Your task to perform on an android device: turn smart compose on in the gmail app Image 0: 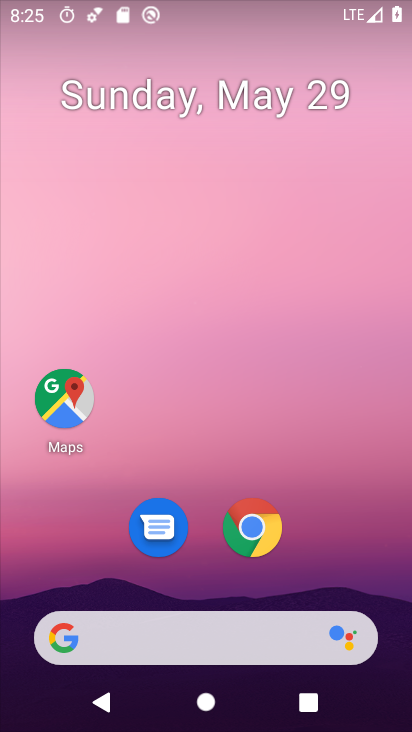
Step 0: press home button
Your task to perform on an android device: turn smart compose on in the gmail app Image 1: 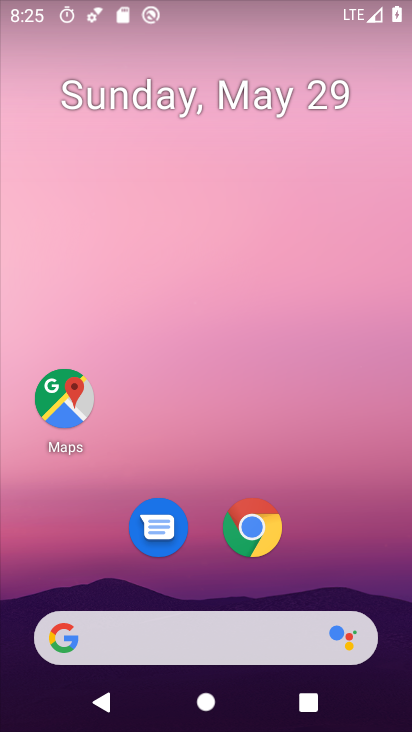
Step 1: drag from (212, 587) to (189, 26)
Your task to perform on an android device: turn smart compose on in the gmail app Image 2: 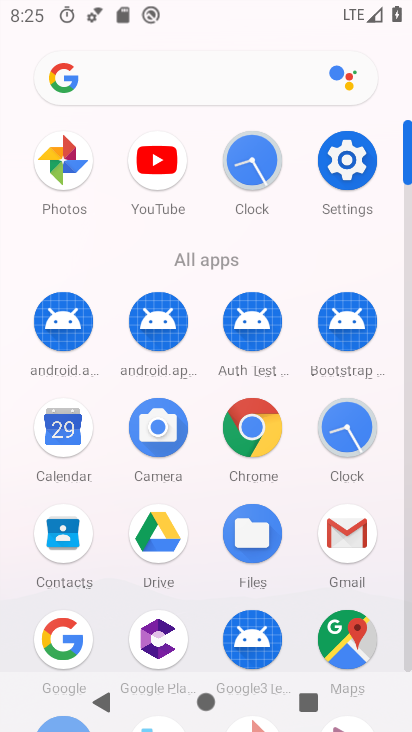
Step 2: click (345, 526)
Your task to perform on an android device: turn smart compose on in the gmail app Image 3: 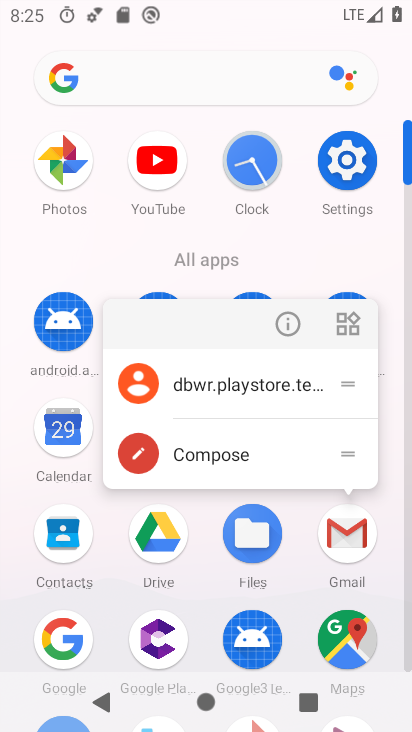
Step 3: click (345, 526)
Your task to perform on an android device: turn smart compose on in the gmail app Image 4: 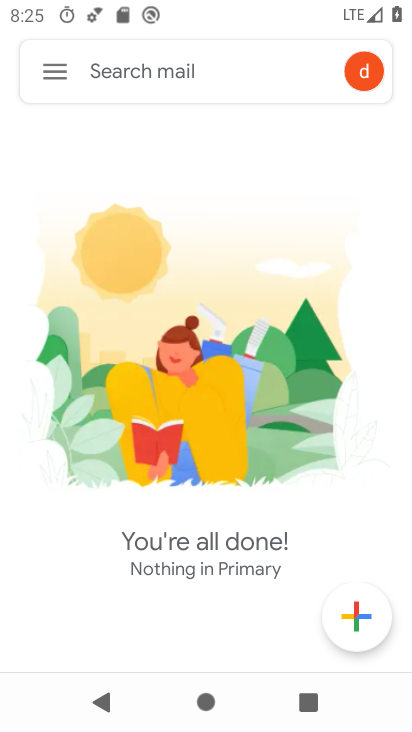
Step 4: click (57, 66)
Your task to perform on an android device: turn smart compose on in the gmail app Image 5: 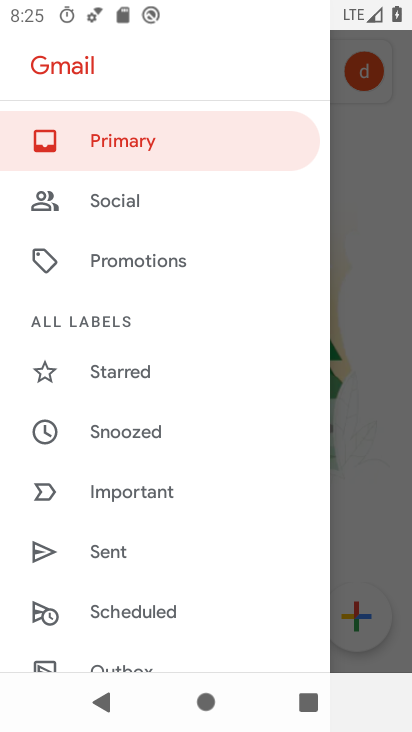
Step 5: drag from (139, 629) to (133, 136)
Your task to perform on an android device: turn smart compose on in the gmail app Image 6: 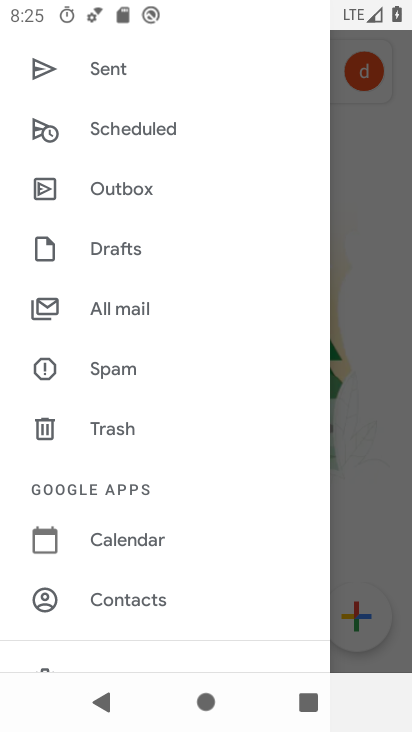
Step 6: drag from (160, 628) to (156, 433)
Your task to perform on an android device: turn smart compose on in the gmail app Image 7: 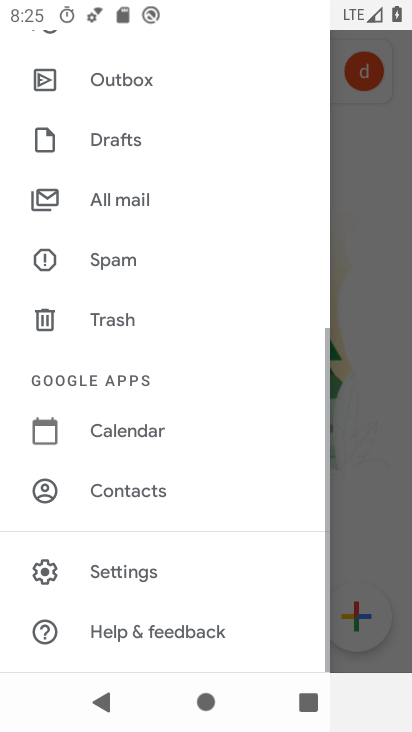
Step 7: drag from (160, 245) to (147, 121)
Your task to perform on an android device: turn smart compose on in the gmail app Image 8: 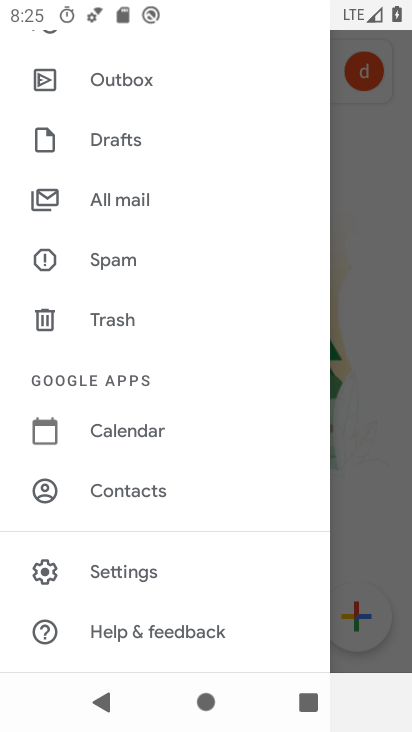
Step 8: click (171, 576)
Your task to perform on an android device: turn smart compose on in the gmail app Image 9: 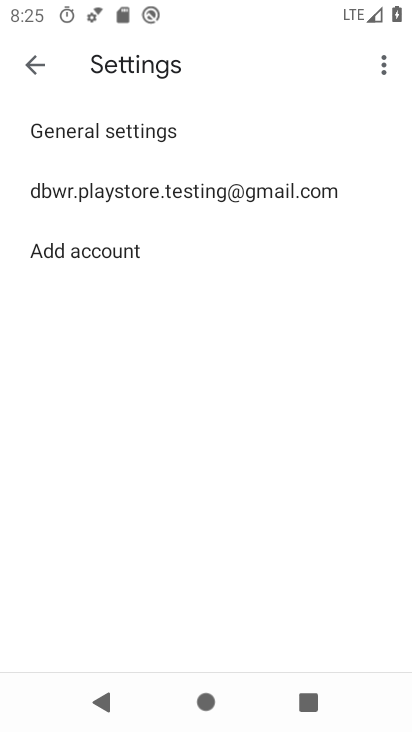
Step 9: click (277, 185)
Your task to perform on an android device: turn smart compose on in the gmail app Image 10: 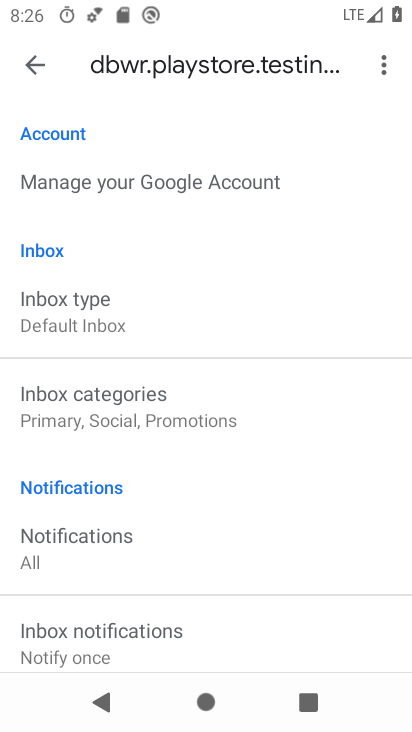
Step 10: drag from (233, 640) to (250, 195)
Your task to perform on an android device: turn smart compose on in the gmail app Image 11: 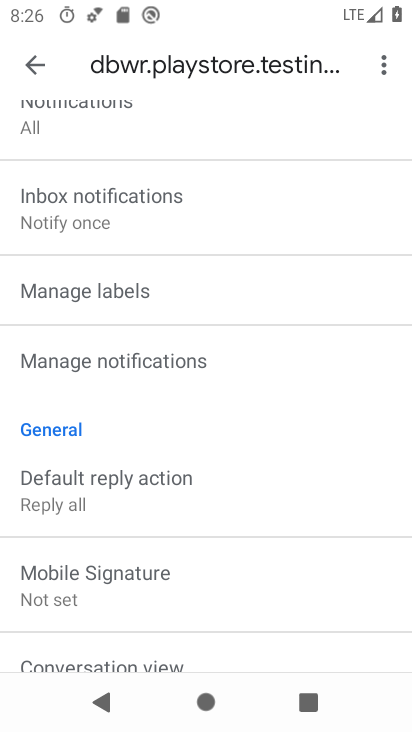
Step 11: click (213, 640)
Your task to perform on an android device: turn smart compose on in the gmail app Image 12: 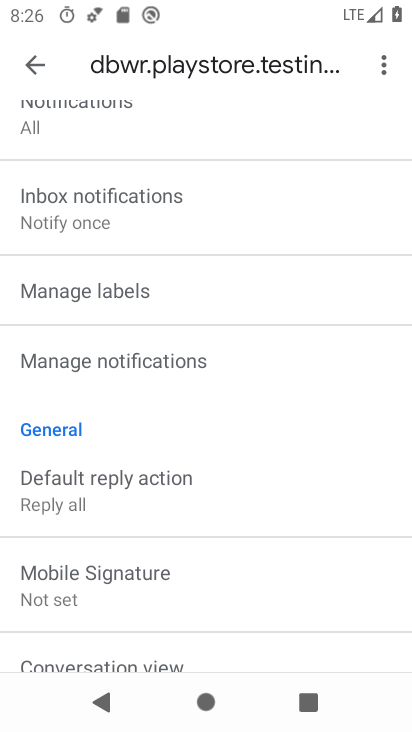
Step 12: click (237, 535)
Your task to perform on an android device: turn smart compose on in the gmail app Image 13: 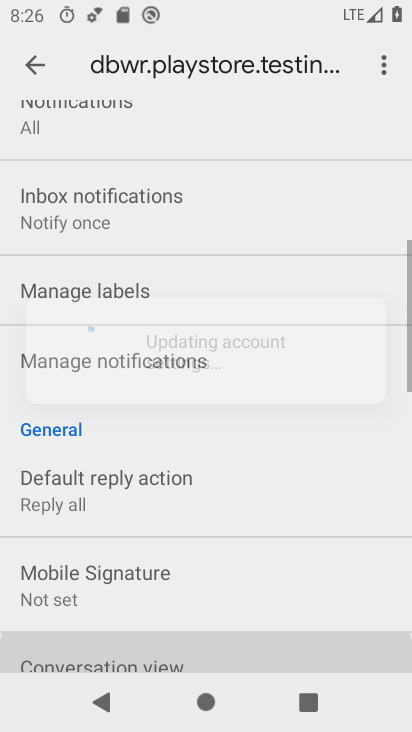
Step 13: drag from (257, 323) to (253, 222)
Your task to perform on an android device: turn smart compose on in the gmail app Image 14: 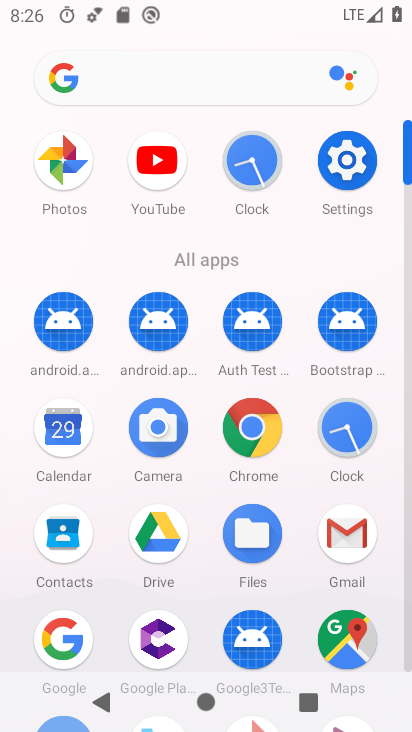
Step 14: click (353, 523)
Your task to perform on an android device: turn smart compose on in the gmail app Image 15: 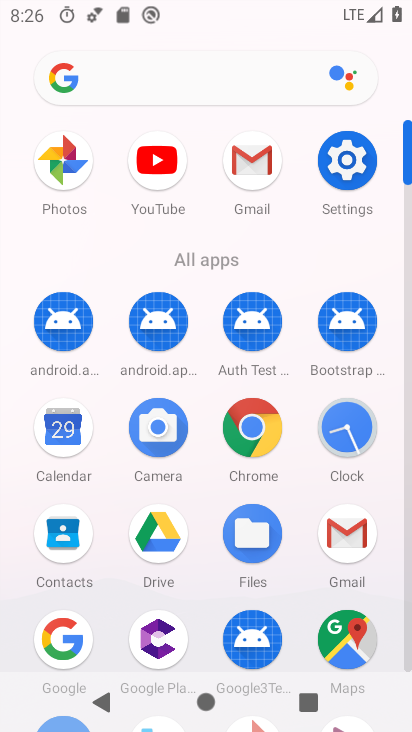
Step 15: click (250, 150)
Your task to perform on an android device: turn smart compose on in the gmail app Image 16: 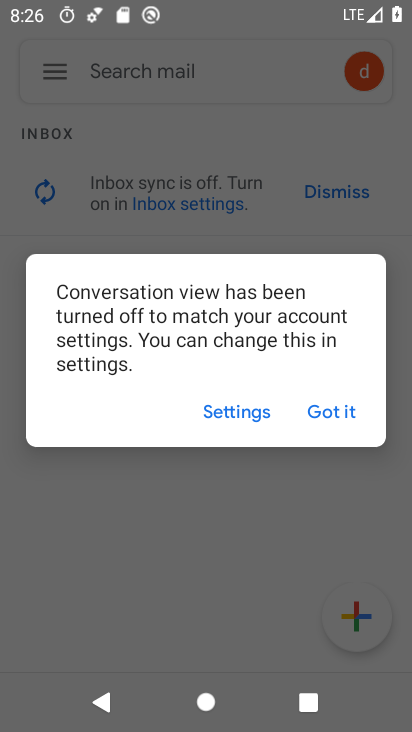
Step 16: click (326, 413)
Your task to perform on an android device: turn smart compose on in the gmail app Image 17: 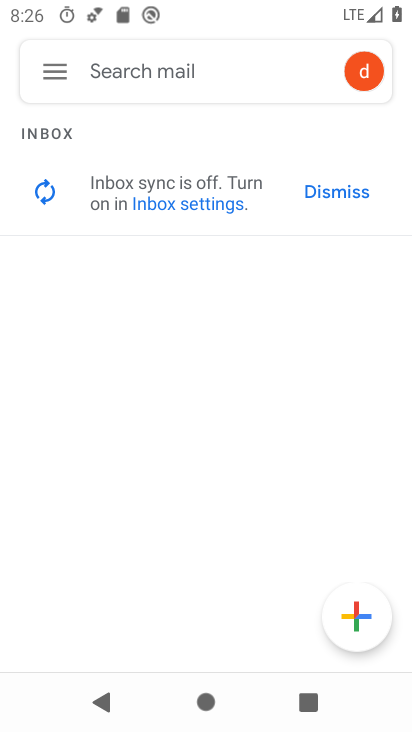
Step 17: click (57, 74)
Your task to perform on an android device: turn smart compose on in the gmail app Image 18: 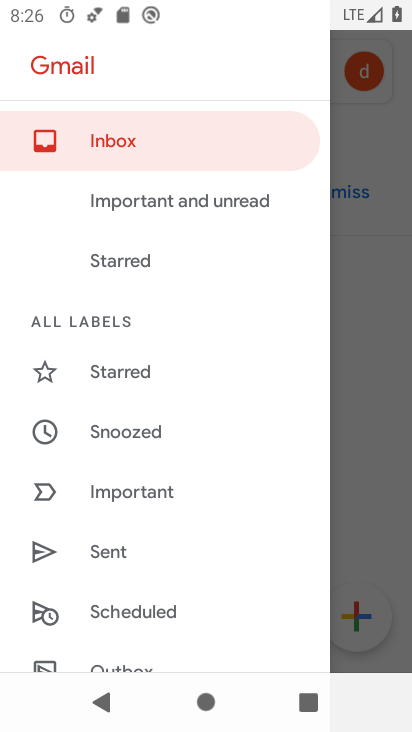
Step 18: drag from (153, 640) to (162, 117)
Your task to perform on an android device: turn smart compose on in the gmail app Image 19: 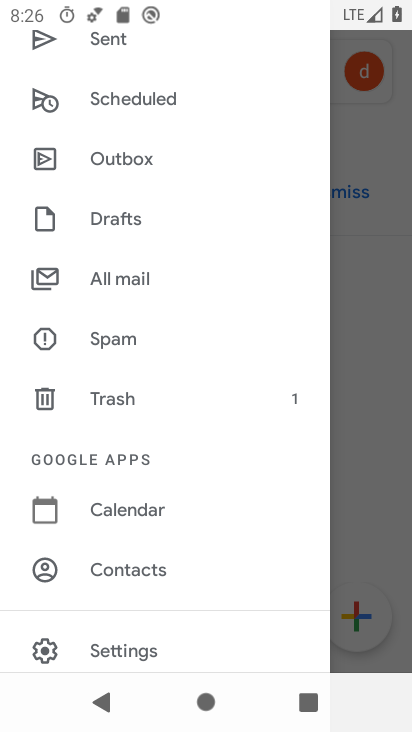
Step 19: click (168, 647)
Your task to perform on an android device: turn smart compose on in the gmail app Image 20: 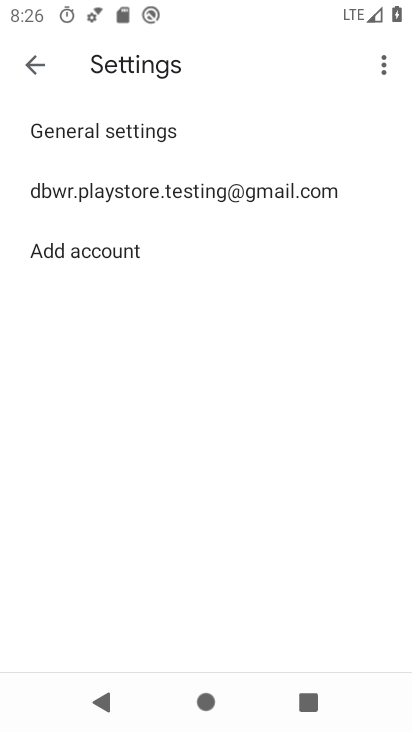
Step 20: click (338, 185)
Your task to perform on an android device: turn smart compose on in the gmail app Image 21: 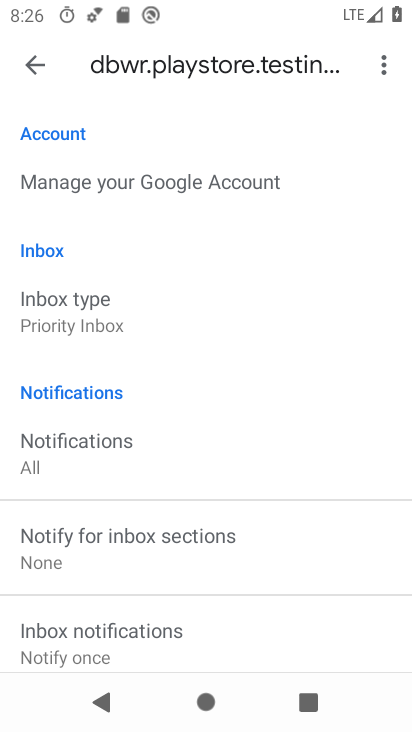
Step 21: task complete